Your task to perform on an android device: turn off data saver in the chrome app Image 0: 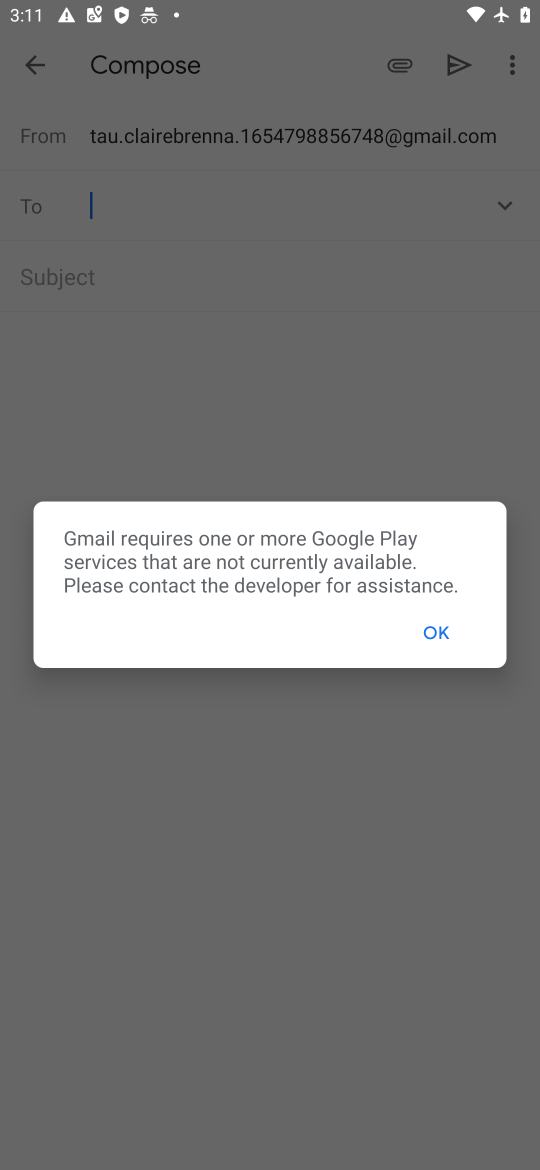
Step 0: click (33, 81)
Your task to perform on an android device: turn off data saver in the chrome app Image 1: 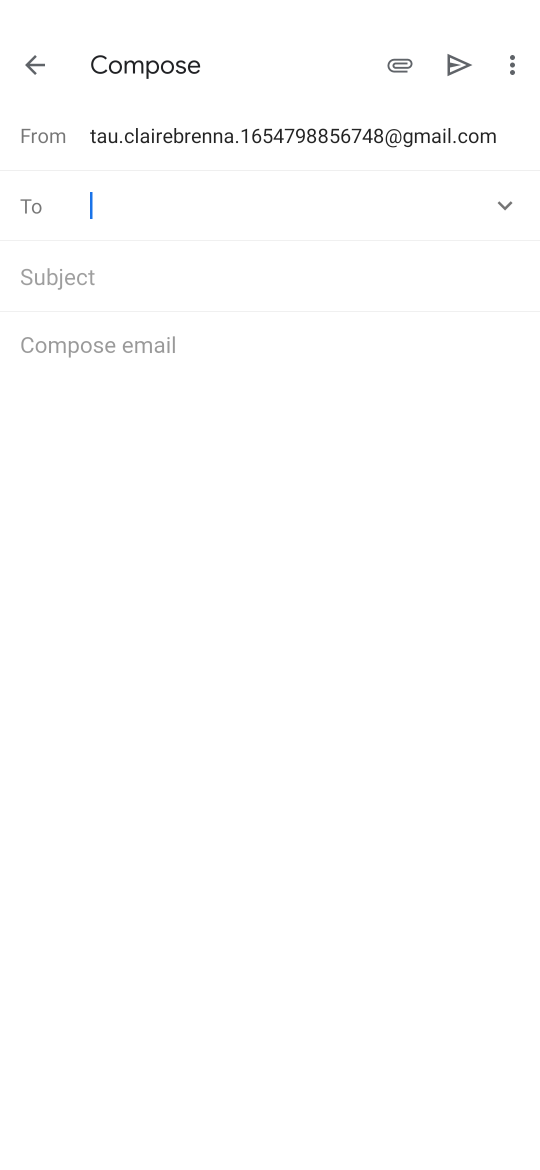
Step 1: click (437, 636)
Your task to perform on an android device: turn off data saver in the chrome app Image 2: 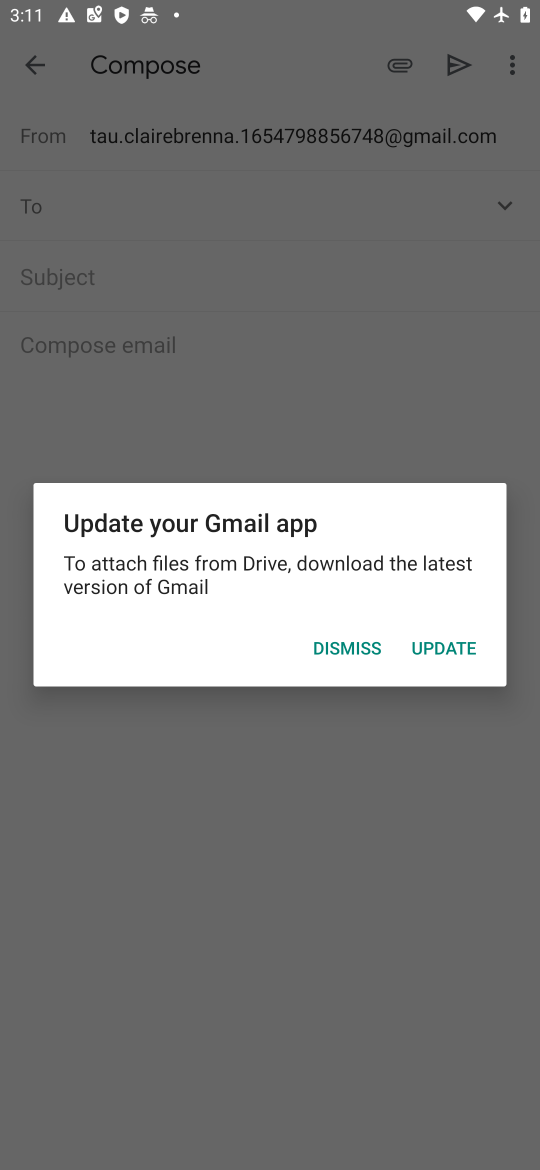
Step 2: click (341, 637)
Your task to perform on an android device: turn off data saver in the chrome app Image 3: 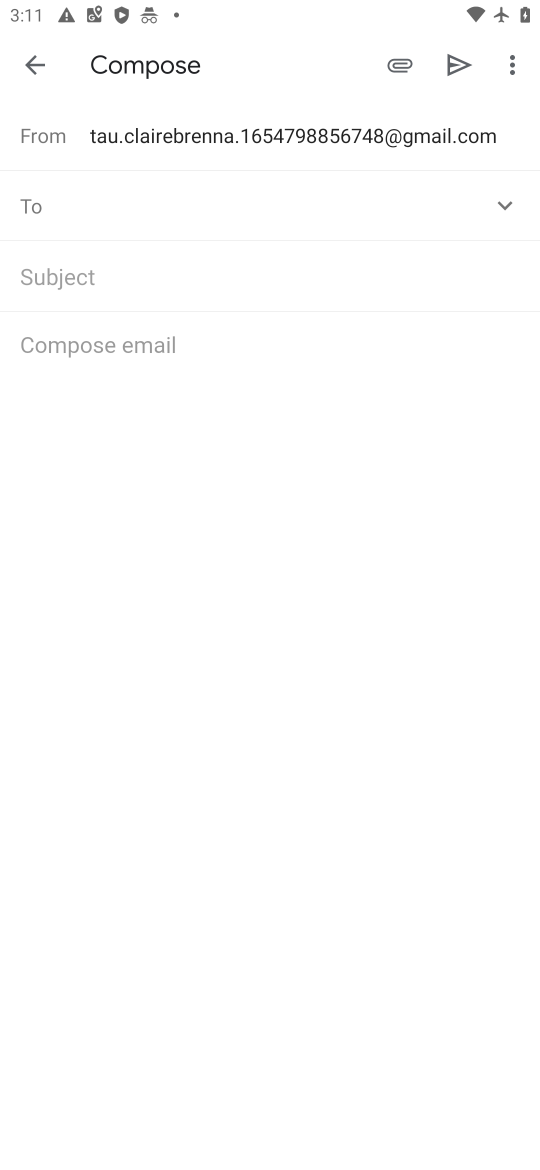
Step 3: click (25, 55)
Your task to perform on an android device: turn off data saver in the chrome app Image 4: 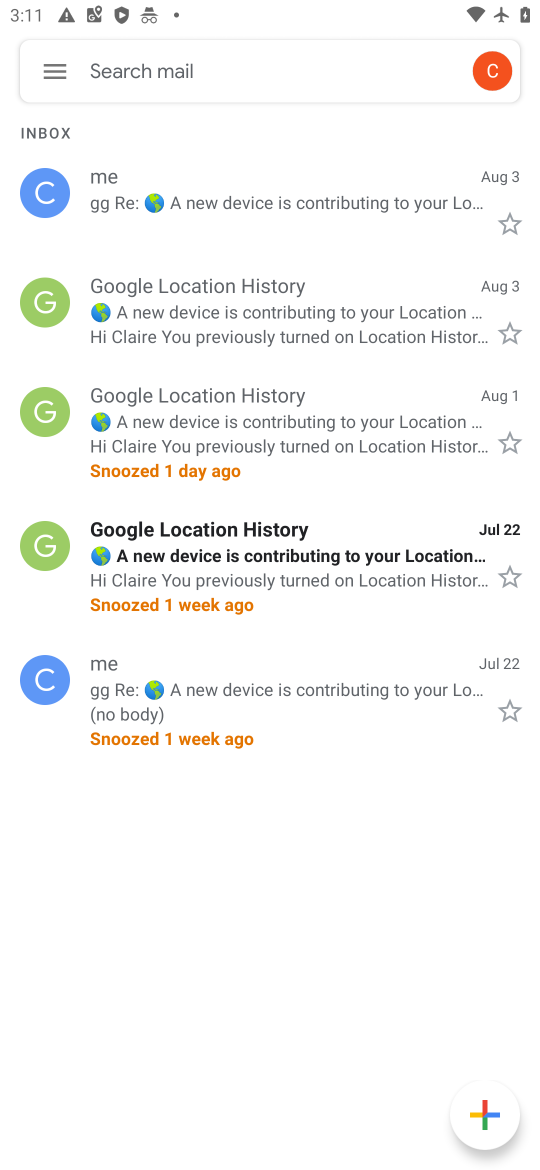
Step 4: drag from (248, 778) to (248, 382)
Your task to perform on an android device: turn off data saver in the chrome app Image 5: 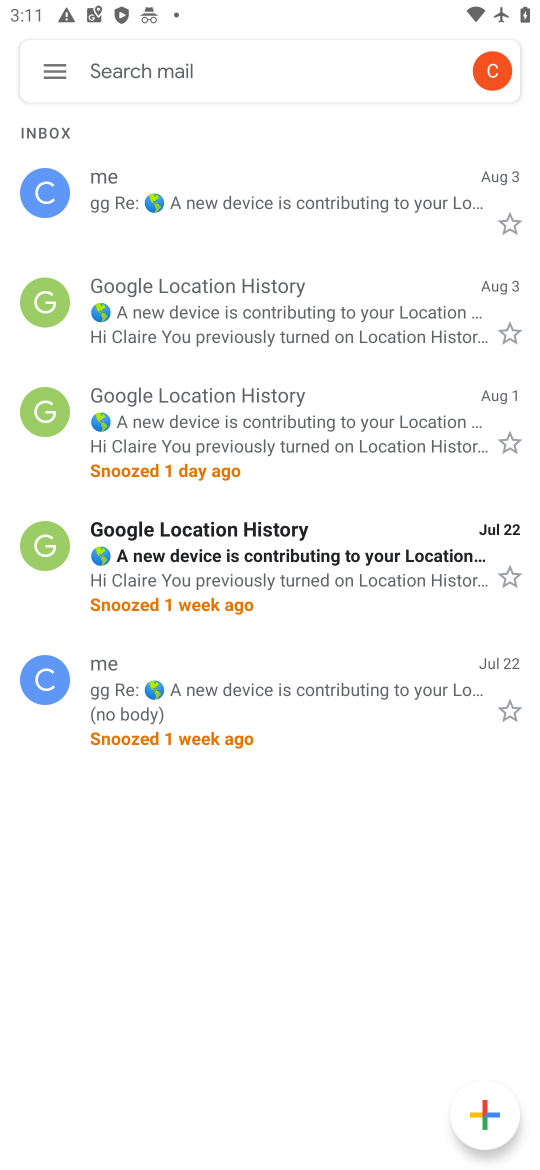
Step 5: press back button
Your task to perform on an android device: turn off data saver in the chrome app Image 6: 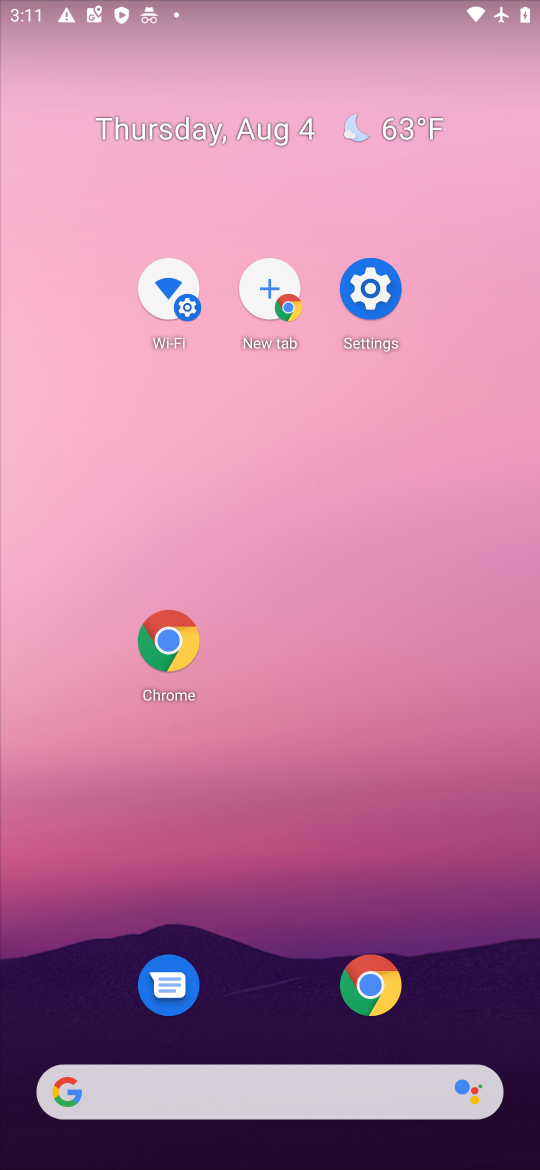
Step 6: drag from (316, 918) to (96, 405)
Your task to perform on an android device: turn off data saver in the chrome app Image 7: 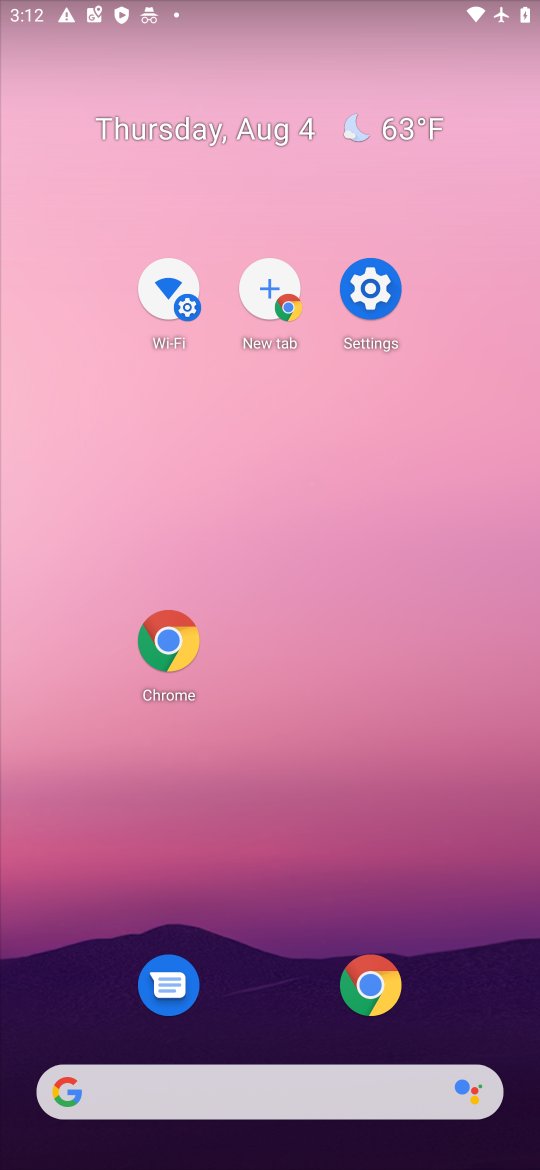
Step 7: drag from (248, 1029) to (167, 426)
Your task to perform on an android device: turn off data saver in the chrome app Image 8: 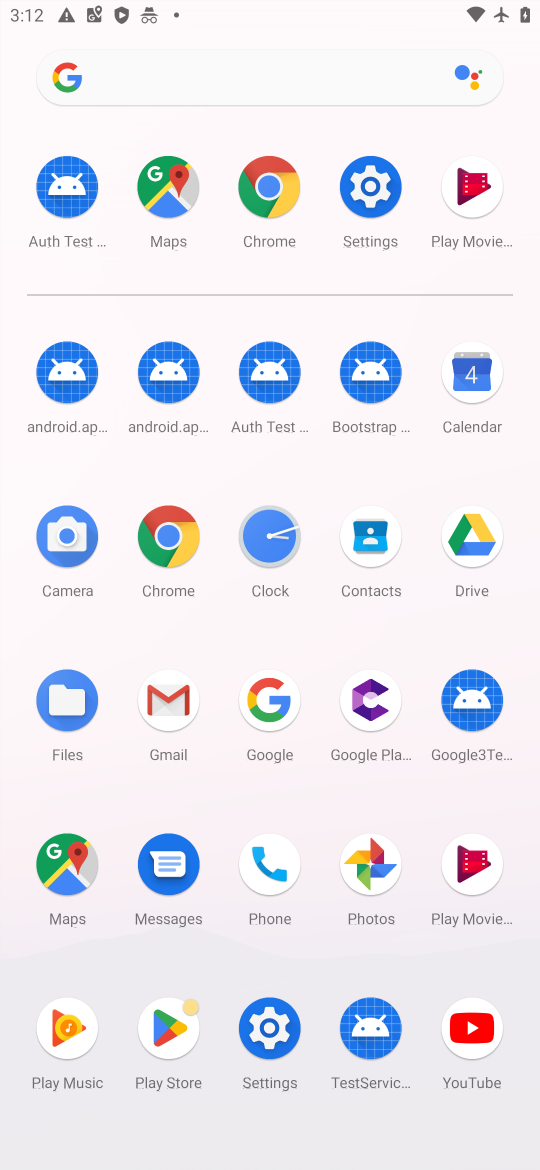
Step 8: click (361, 177)
Your task to perform on an android device: turn off data saver in the chrome app Image 9: 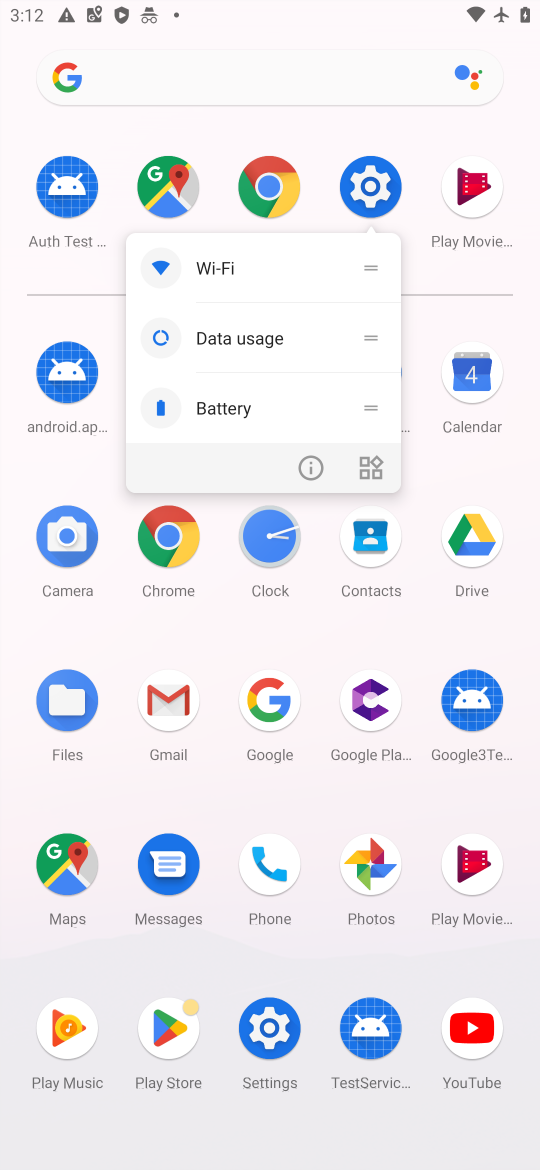
Step 9: click (361, 177)
Your task to perform on an android device: turn off data saver in the chrome app Image 10: 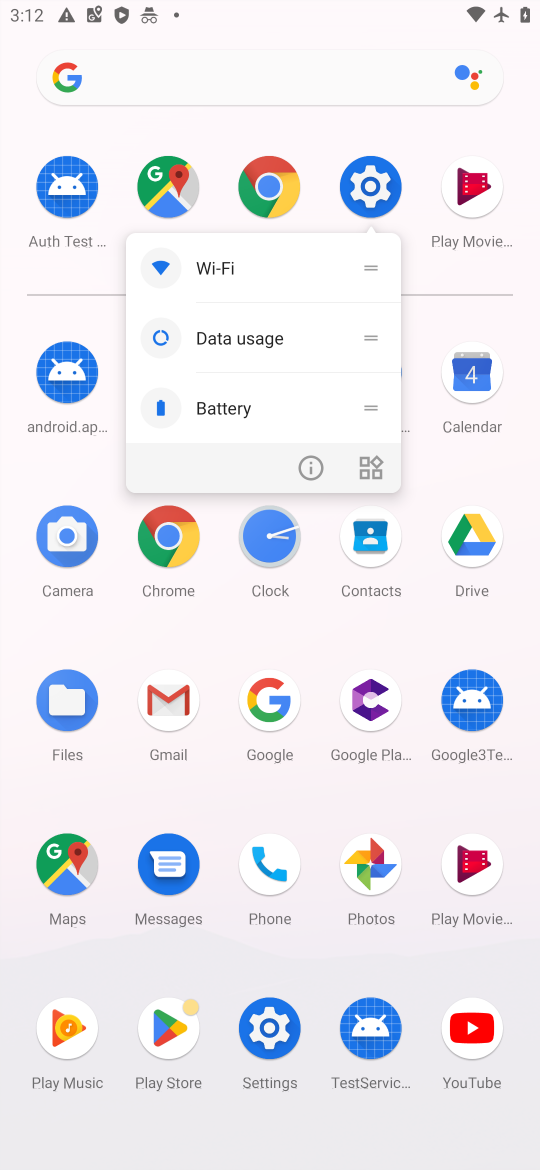
Step 10: click (258, 195)
Your task to perform on an android device: turn off data saver in the chrome app Image 11: 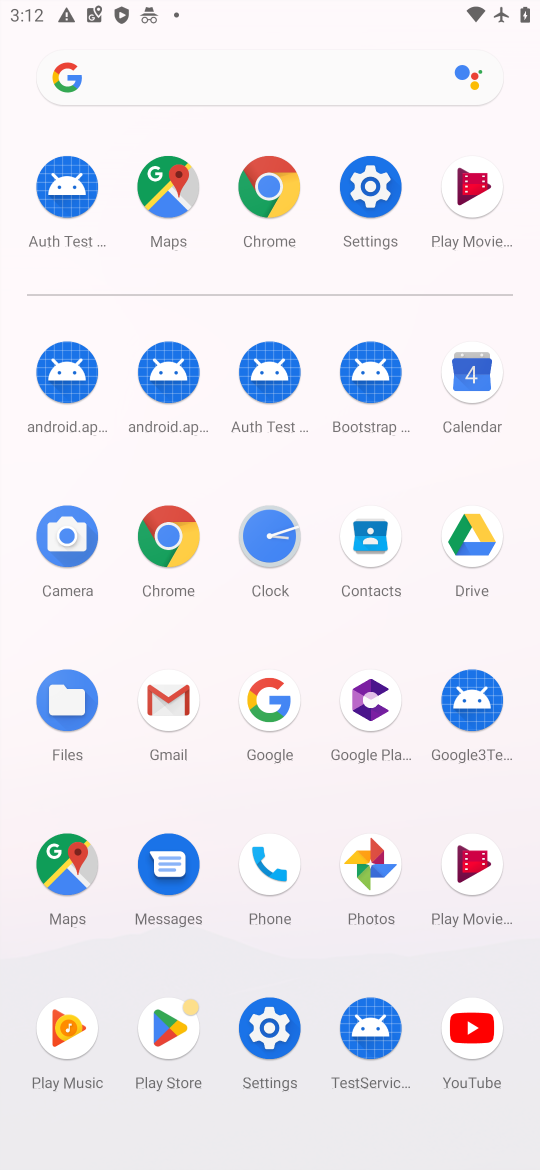
Step 11: click (265, 201)
Your task to perform on an android device: turn off data saver in the chrome app Image 12: 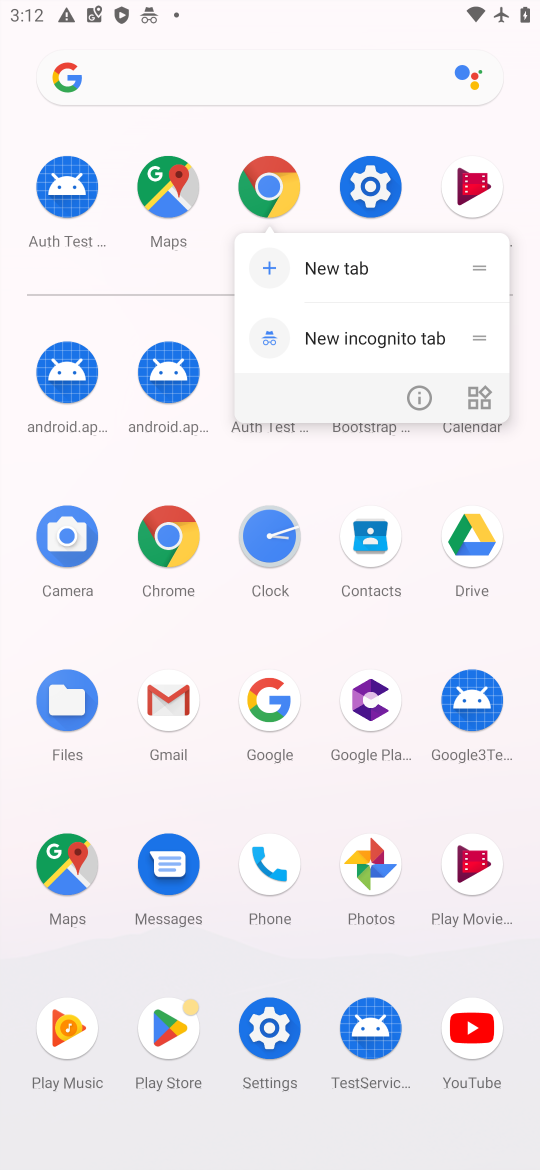
Step 12: click (352, 249)
Your task to perform on an android device: turn off data saver in the chrome app Image 13: 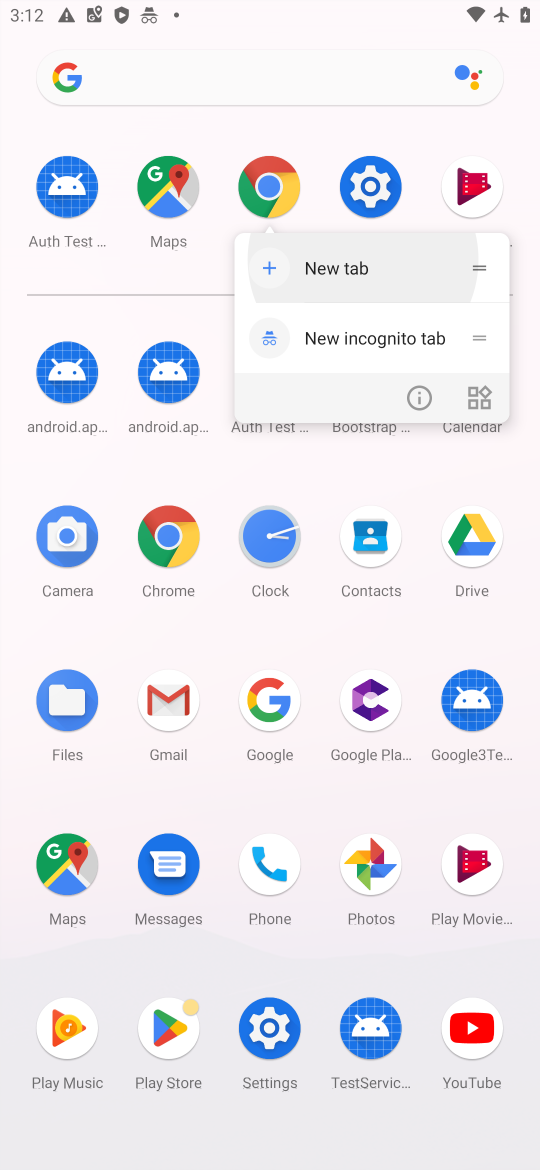
Step 13: click (352, 249)
Your task to perform on an android device: turn off data saver in the chrome app Image 14: 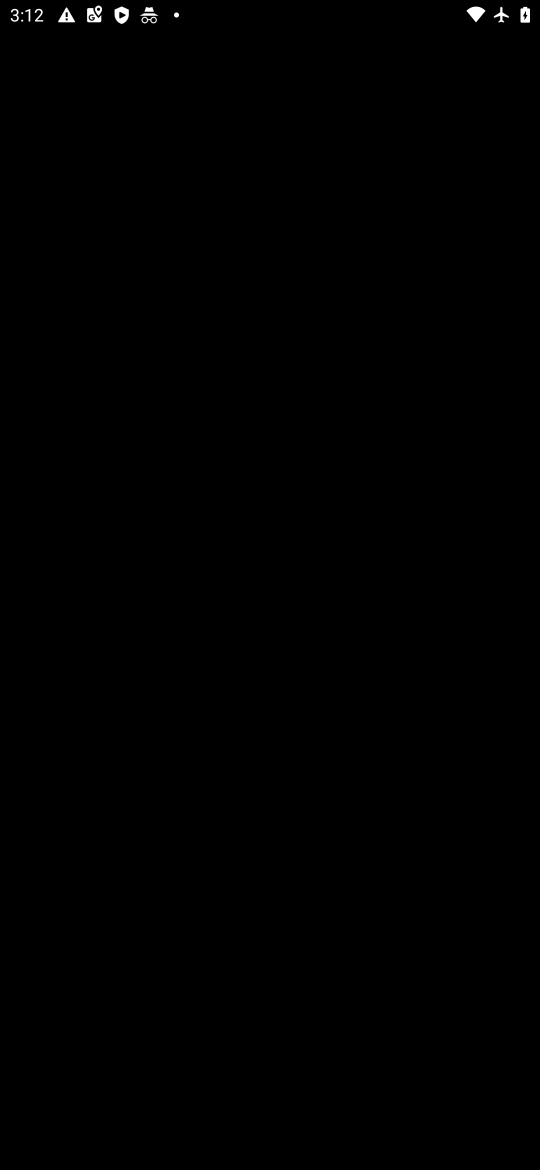
Step 14: click (357, 265)
Your task to perform on an android device: turn off data saver in the chrome app Image 15: 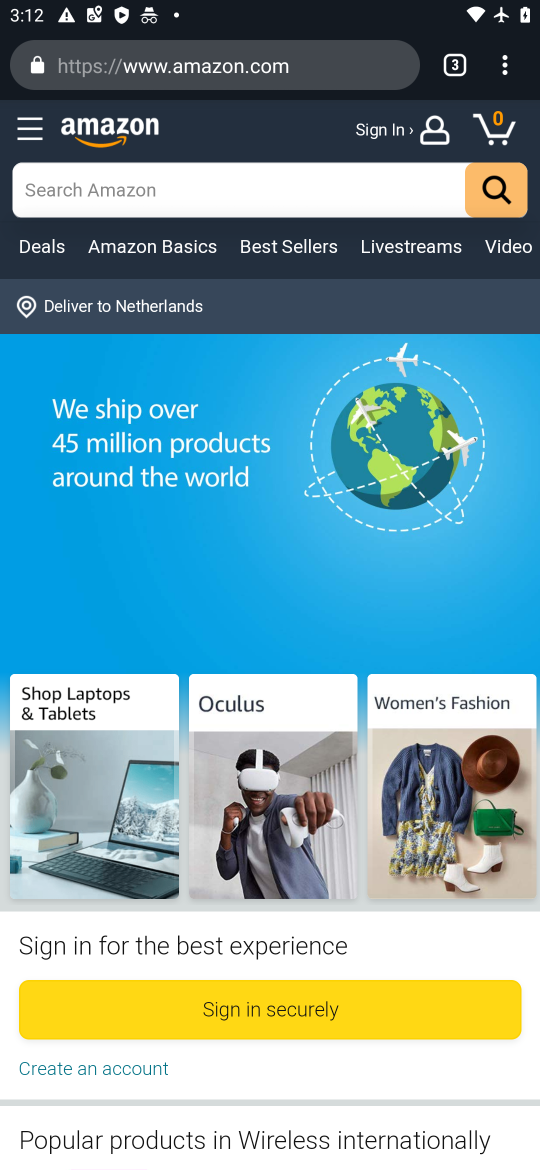
Step 15: drag from (496, 50) to (270, 786)
Your task to perform on an android device: turn off data saver in the chrome app Image 16: 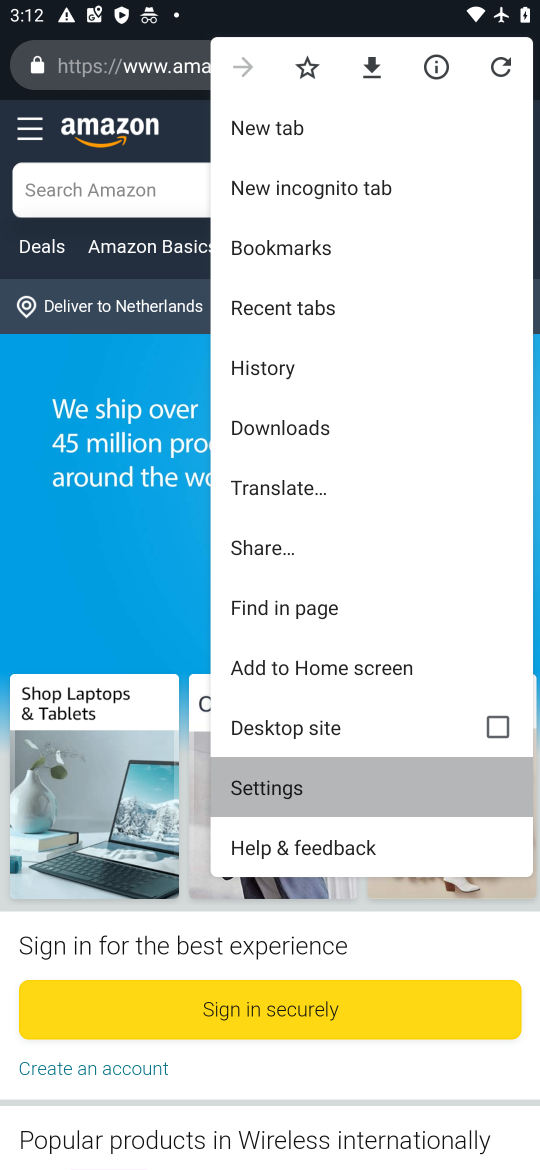
Step 16: click (271, 782)
Your task to perform on an android device: turn off data saver in the chrome app Image 17: 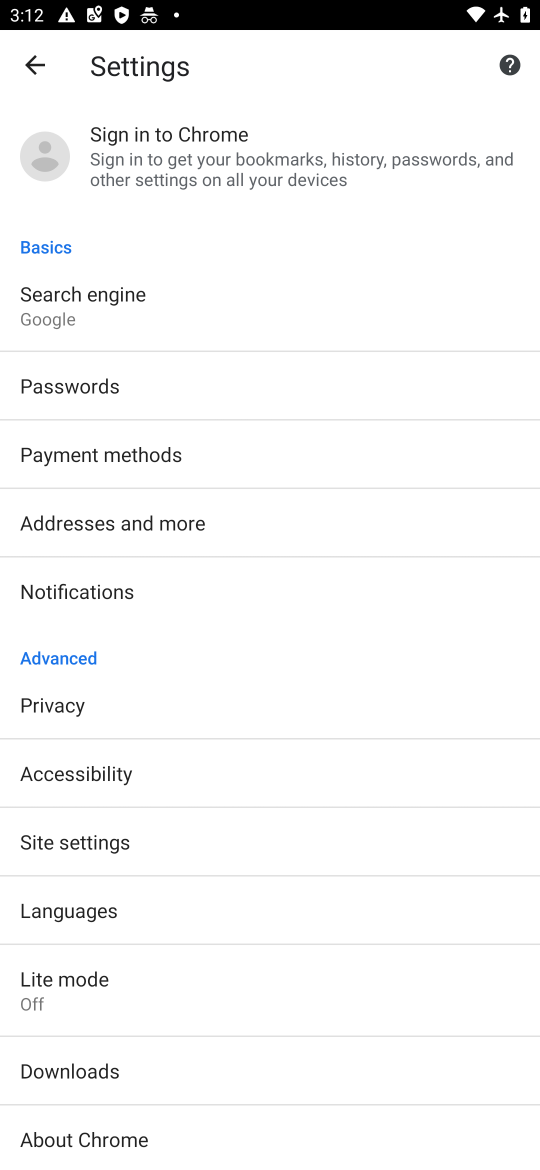
Step 17: click (55, 979)
Your task to perform on an android device: turn off data saver in the chrome app Image 18: 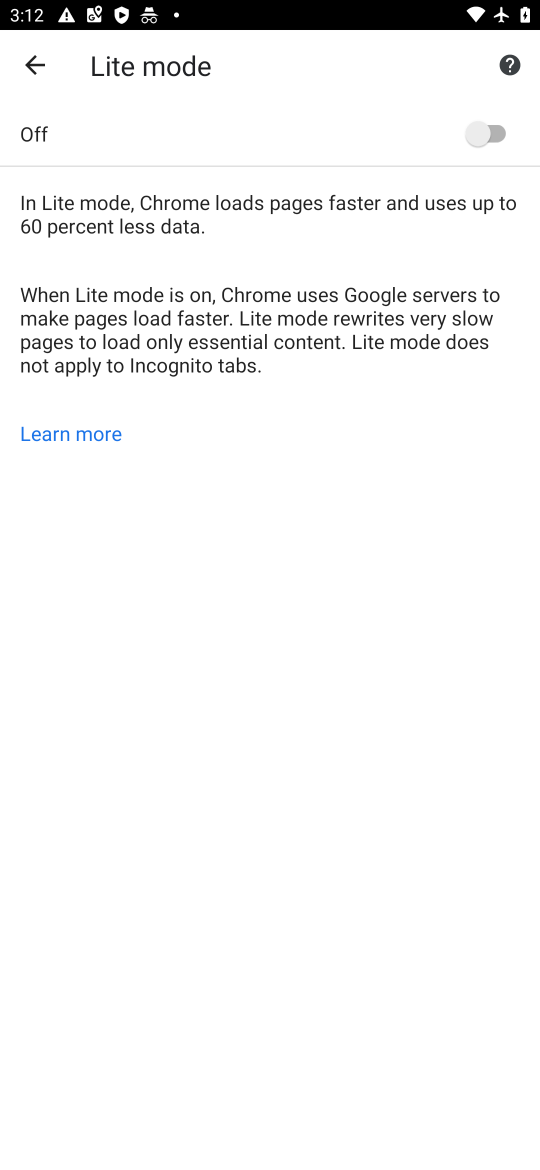
Step 18: task complete